Your task to perform on an android device: turn smart compose on in the gmail app Image 0: 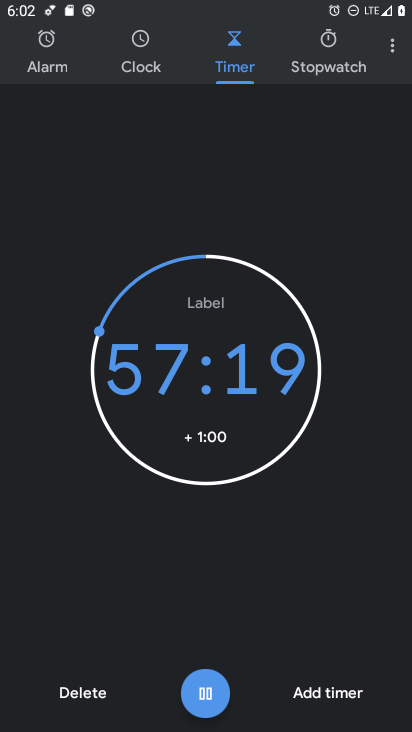
Step 0: press home button
Your task to perform on an android device: turn smart compose on in the gmail app Image 1: 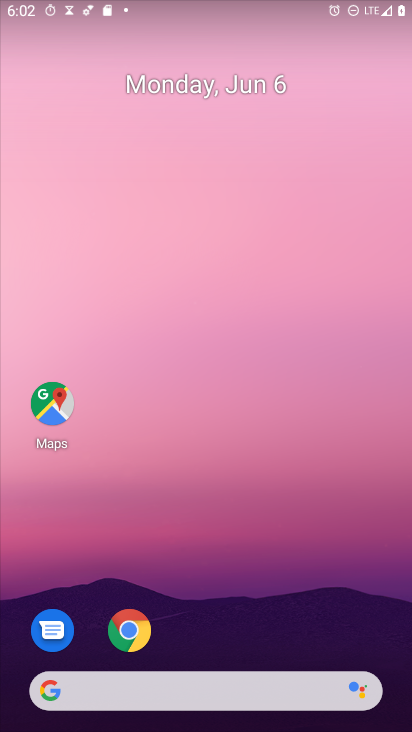
Step 1: drag from (307, 596) to (321, 112)
Your task to perform on an android device: turn smart compose on in the gmail app Image 2: 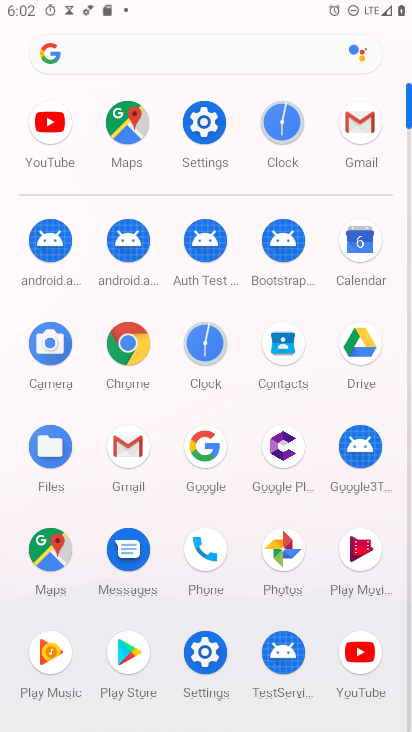
Step 2: click (345, 134)
Your task to perform on an android device: turn smart compose on in the gmail app Image 3: 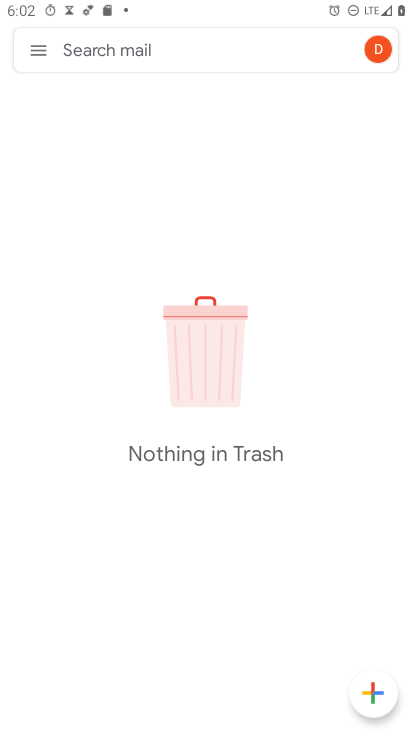
Step 3: click (33, 49)
Your task to perform on an android device: turn smart compose on in the gmail app Image 4: 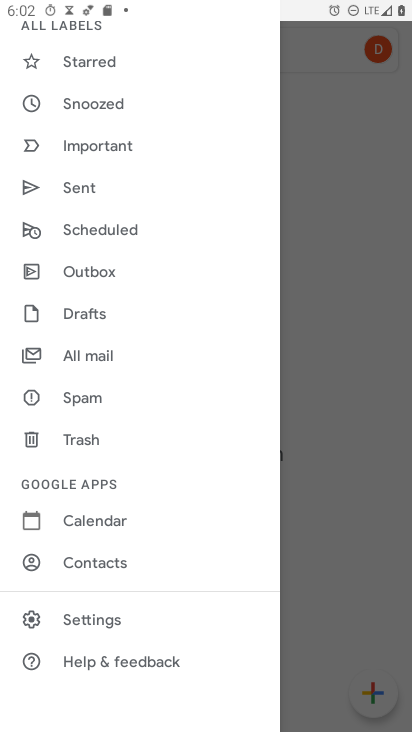
Step 4: click (112, 612)
Your task to perform on an android device: turn smart compose on in the gmail app Image 5: 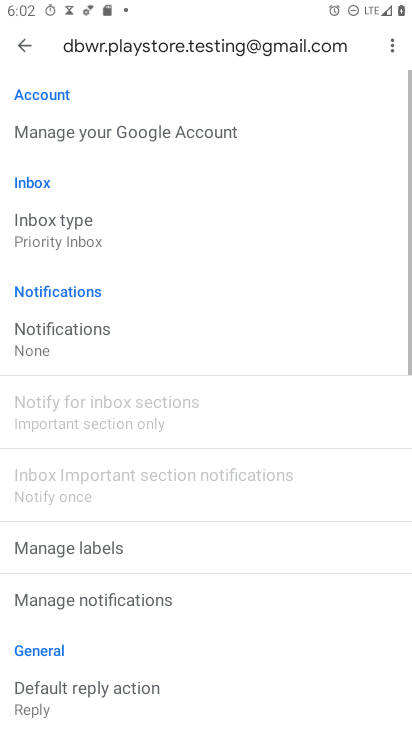
Step 5: task complete